Your task to perform on an android device: turn on javascript in the chrome app Image 0: 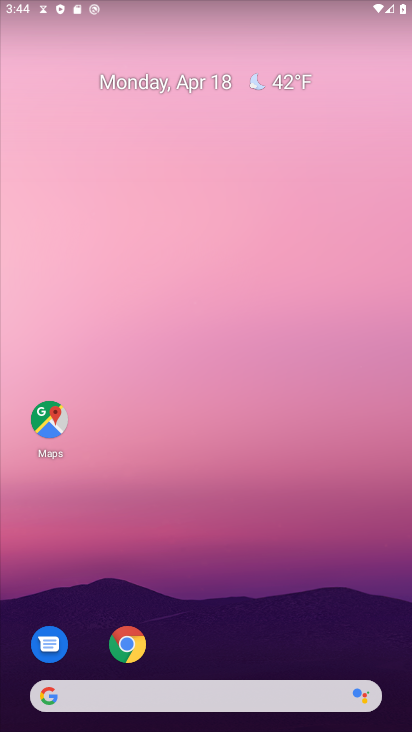
Step 0: drag from (316, 595) to (269, 17)
Your task to perform on an android device: turn on javascript in the chrome app Image 1: 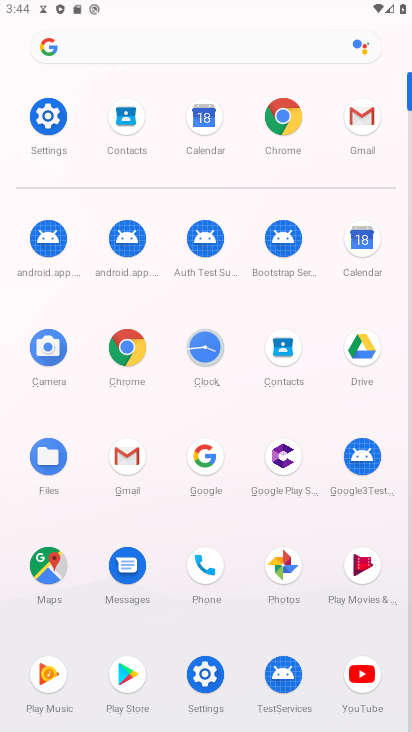
Step 1: click (283, 115)
Your task to perform on an android device: turn on javascript in the chrome app Image 2: 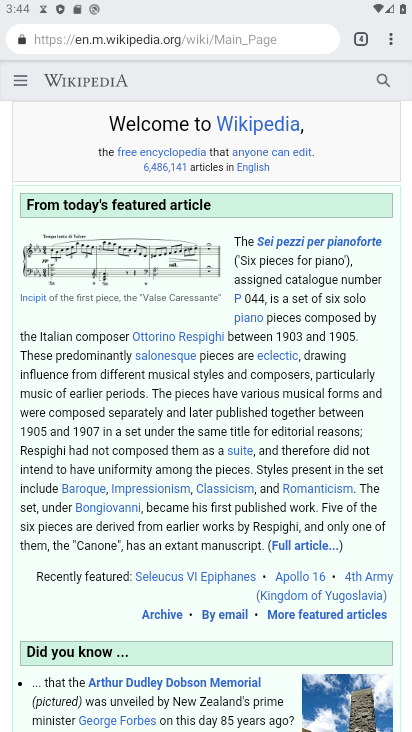
Step 2: click (392, 37)
Your task to perform on an android device: turn on javascript in the chrome app Image 3: 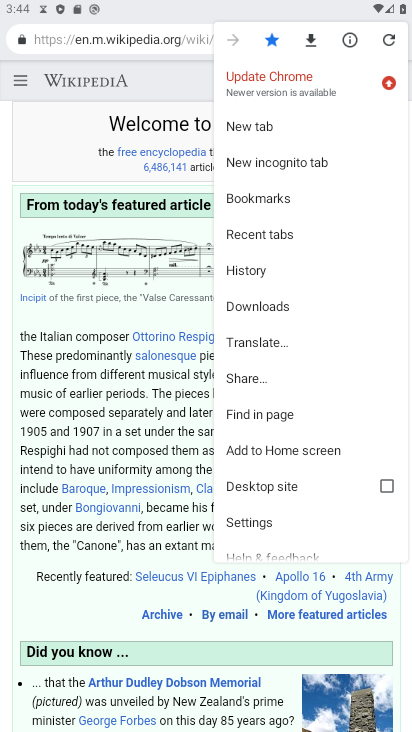
Step 3: click (265, 516)
Your task to perform on an android device: turn on javascript in the chrome app Image 4: 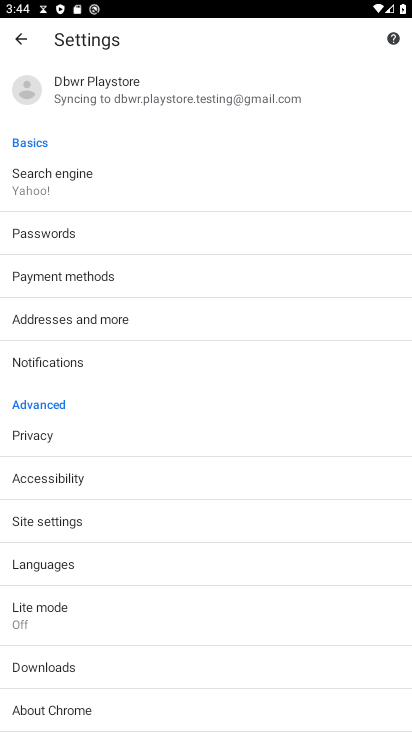
Step 4: click (52, 525)
Your task to perform on an android device: turn on javascript in the chrome app Image 5: 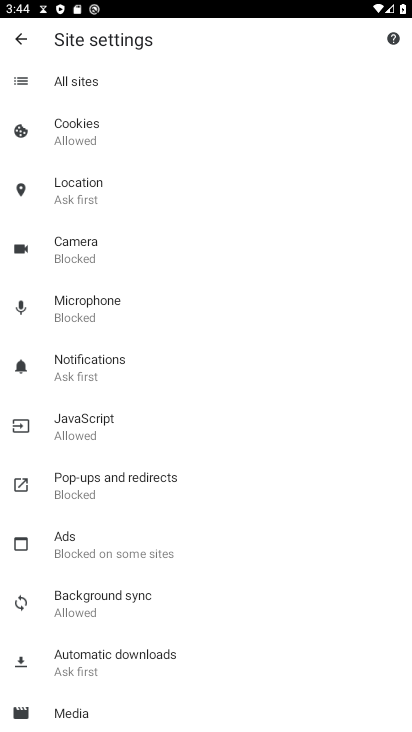
Step 5: task complete